Your task to perform on an android device: toggle priority inbox in the gmail app Image 0: 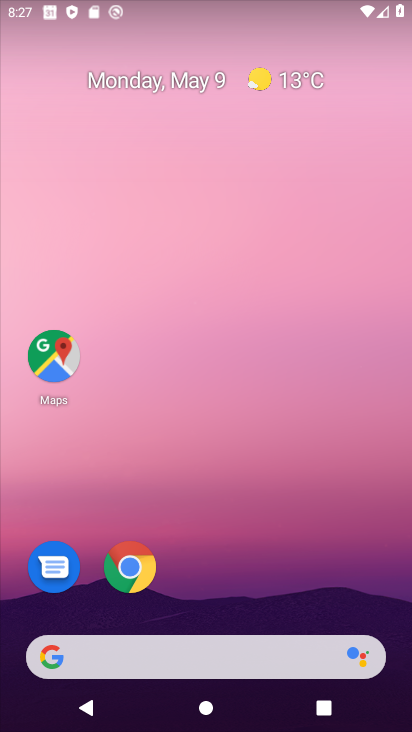
Step 0: drag from (278, 517) to (264, 28)
Your task to perform on an android device: toggle priority inbox in the gmail app Image 1: 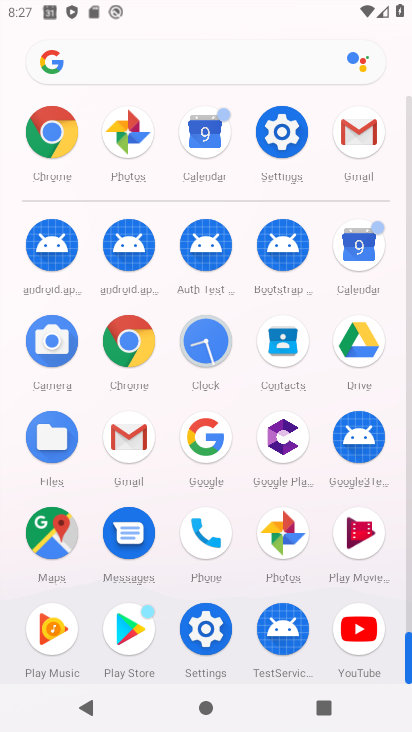
Step 1: click (354, 119)
Your task to perform on an android device: toggle priority inbox in the gmail app Image 2: 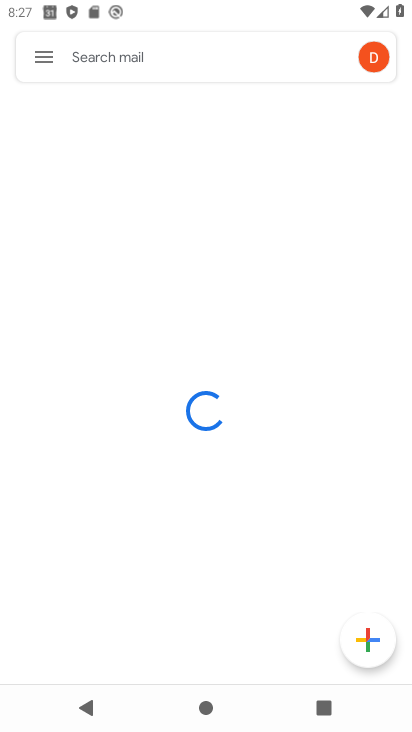
Step 2: click (42, 51)
Your task to perform on an android device: toggle priority inbox in the gmail app Image 3: 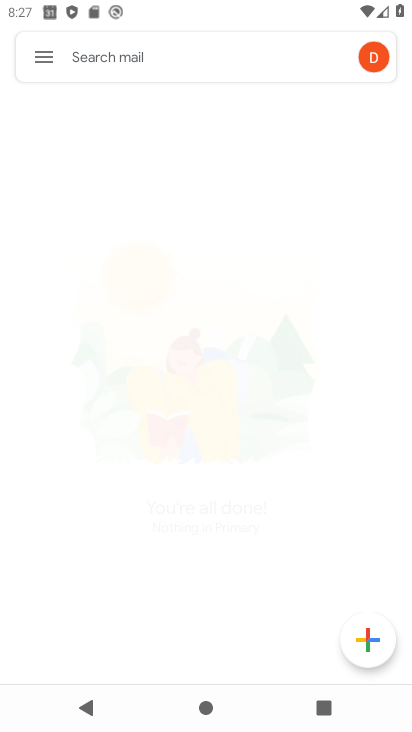
Step 3: drag from (144, 556) to (150, 323)
Your task to perform on an android device: toggle priority inbox in the gmail app Image 4: 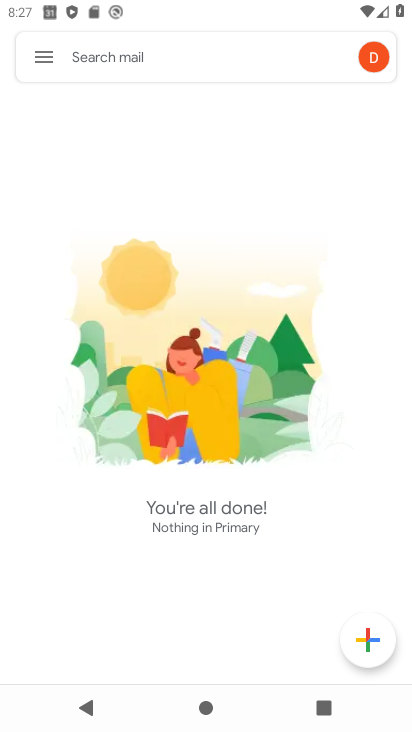
Step 4: click (40, 46)
Your task to perform on an android device: toggle priority inbox in the gmail app Image 5: 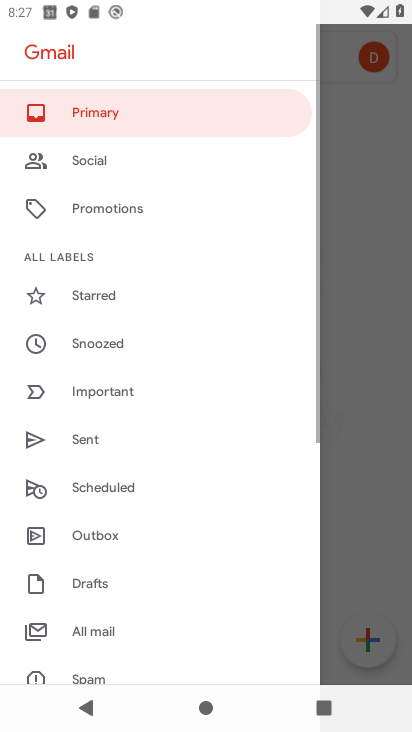
Step 5: drag from (177, 500) to (215, 128)
Your task to perform on an android device: toggle priority inbox in the gmail app Image 6: 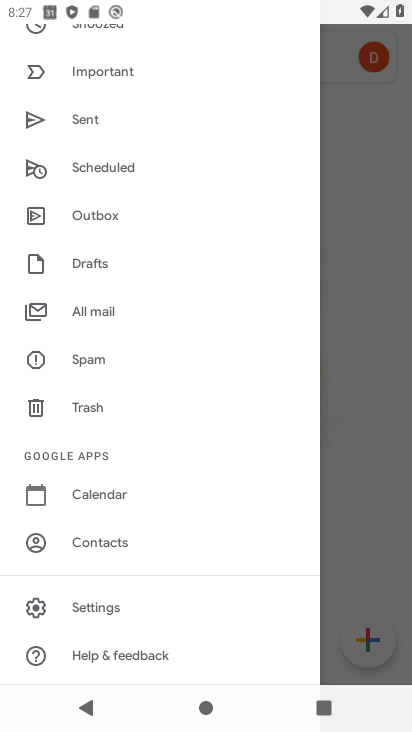
Step 6: click (101, 600)
Your task to perform on an android device: toggle priority inbox in the gmail app Image 7: 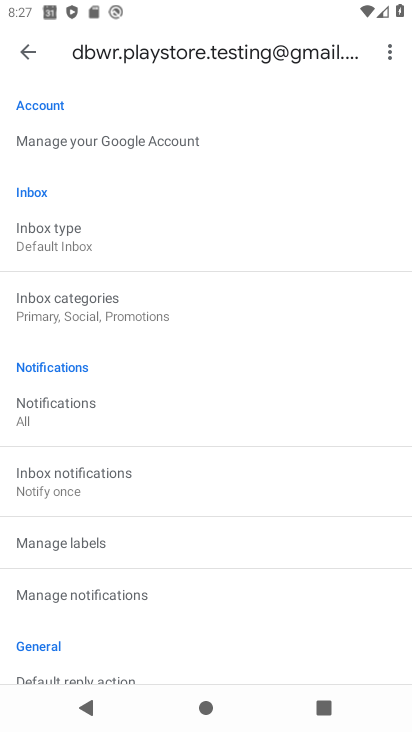
Step 7: click (68, 233)
Your task to perform on an android device: toggle priority inbox in the gmail app Image 8: 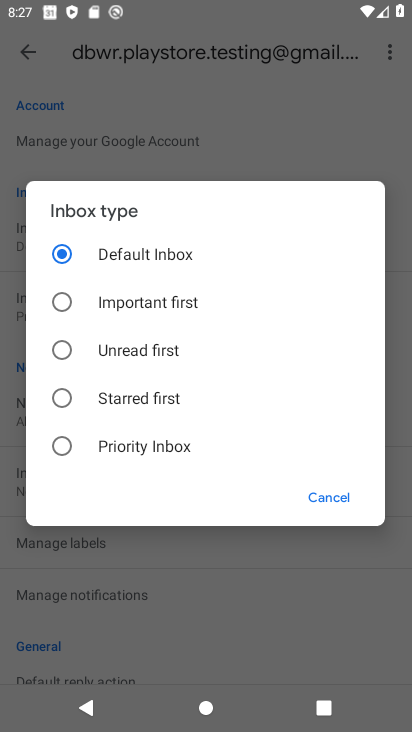
Step 8: click (62, 446)
Your task to perform on an android device: toggle priority inbox in the gmail app Image 9: 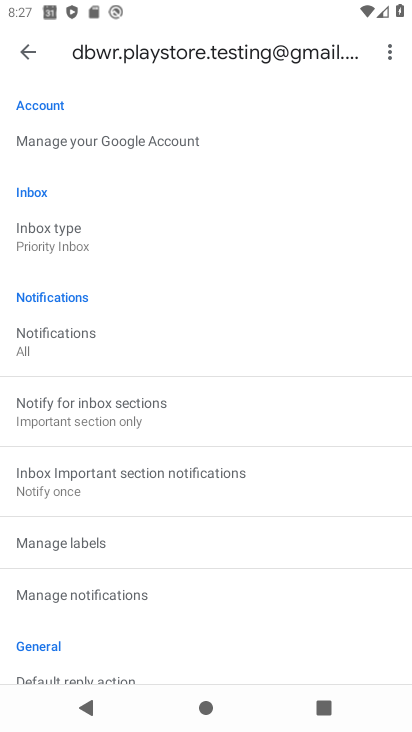
Step 9: task complete